Your task to perform on an android device: Go to Wikipedia Image 0: 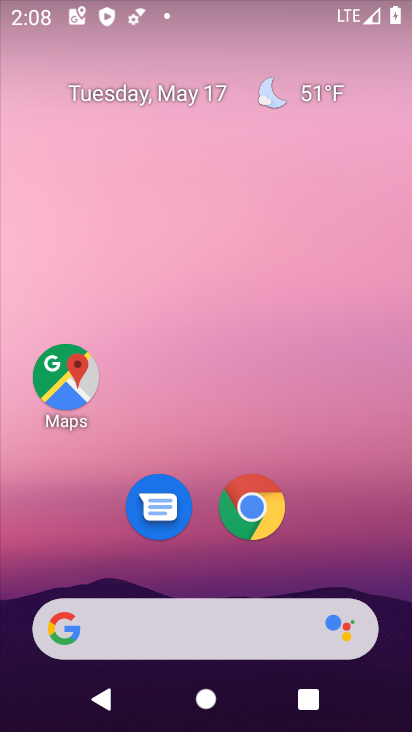
Step 0: click (249, 504)
Your task to perform on an android device: Go to Wikipedia Image 1: 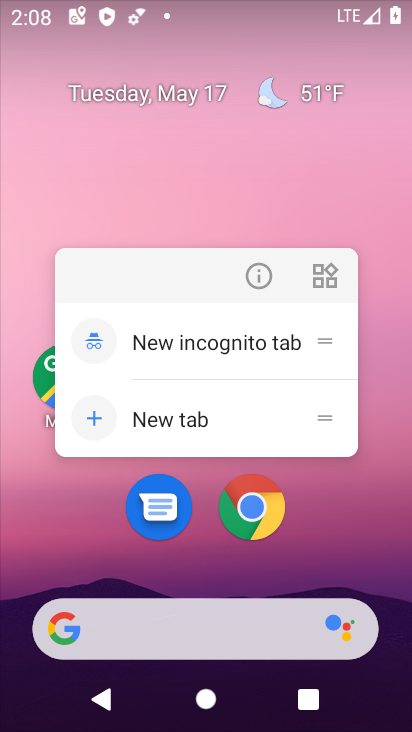
Step 1: click (249, 503)
Your task to perform on an android device: Go to Wikipedia Image 2: 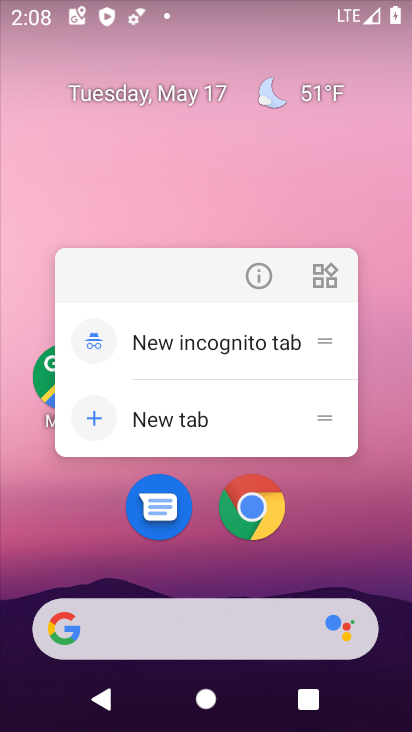
Step 2: click (249, 497)
Your task to perform on an android device: Go to Wikipedia Image 3: 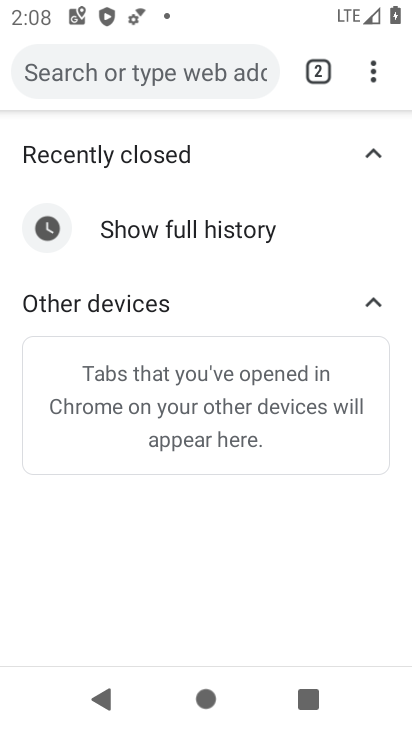
Step 3: click (165, 64)
Your task to perform on an android device: Go to Wikipedia Image 4: 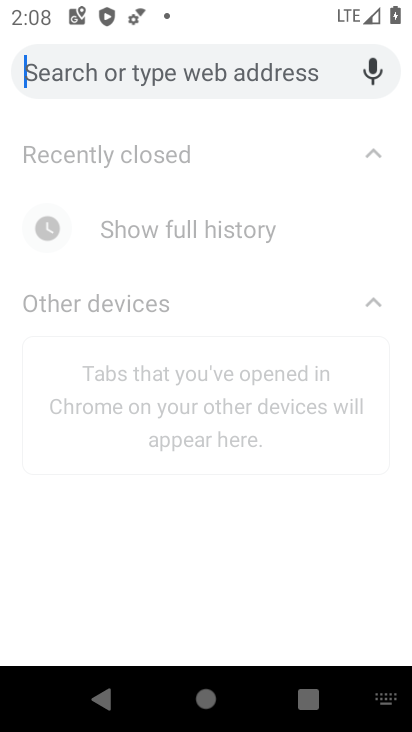
Step 4: type "wikipedia"
Your task to perform on an android device: Go to Wikipedia Image 5: 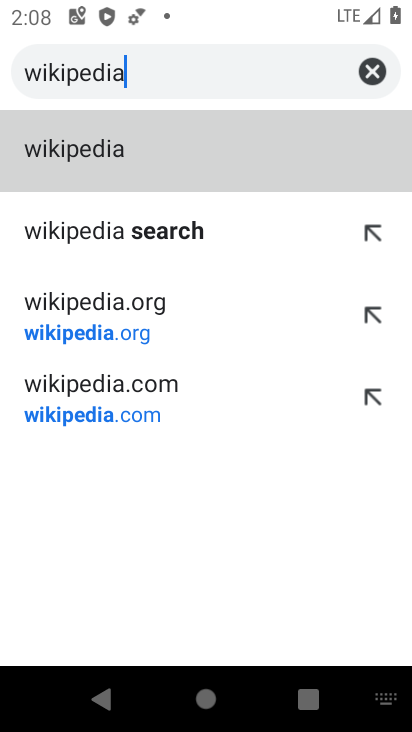
Step 5: click (87, 151)
Your task to perform on an android device: Go to Wikipedia Image 6: 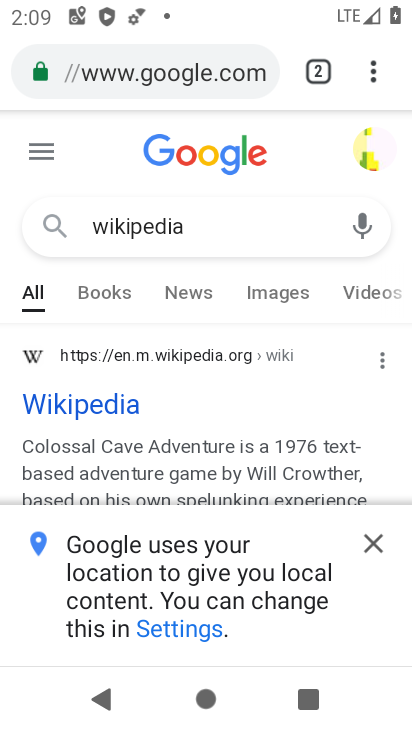
Step 6: click (96, 412)
Your task to perform on an android device: Go to Wikipedia Image 7: 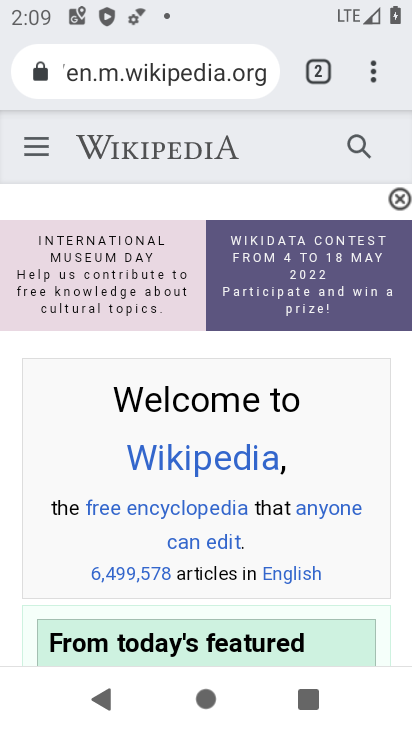
Step 7: task complete